Your task to perform on an android device: turn on showing notifications on the lock screen Image 0: 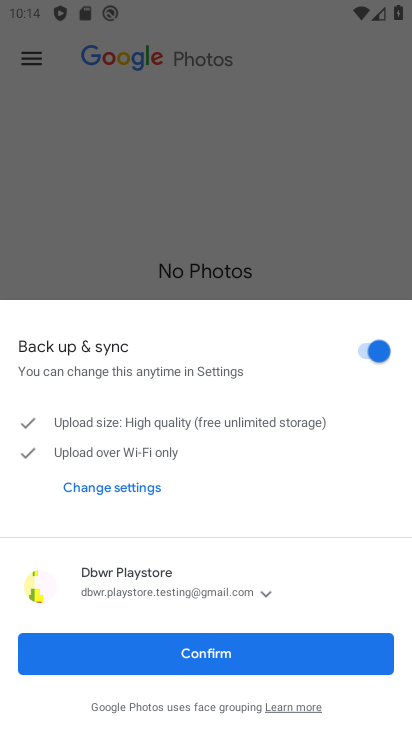
Step 0: press home button
Your task to perform on an android device: turn on showing notifications on the lock screen Image 1: 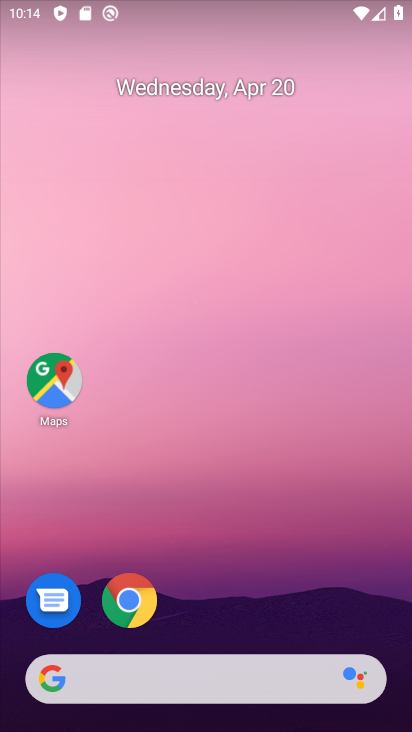
Step 1: drag from (209, 576) to (307, 86)
Your task to perform on an android device: turn on showing notifications on the lock screen Image 2: 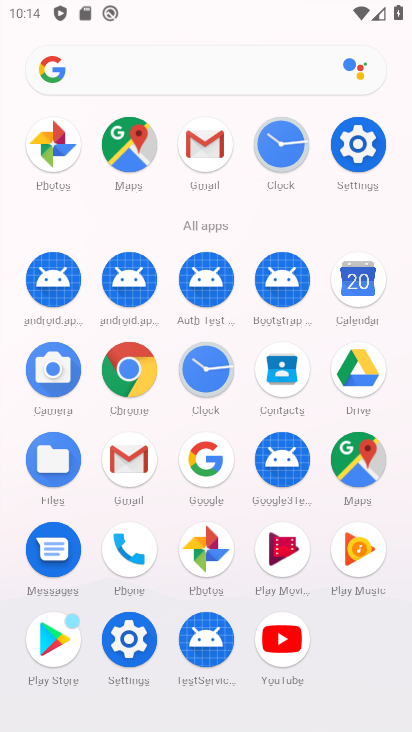
Step 2: click (348, 137)
Your task to perform on an android device: turn on showing notifications on the lock screen Image 3: 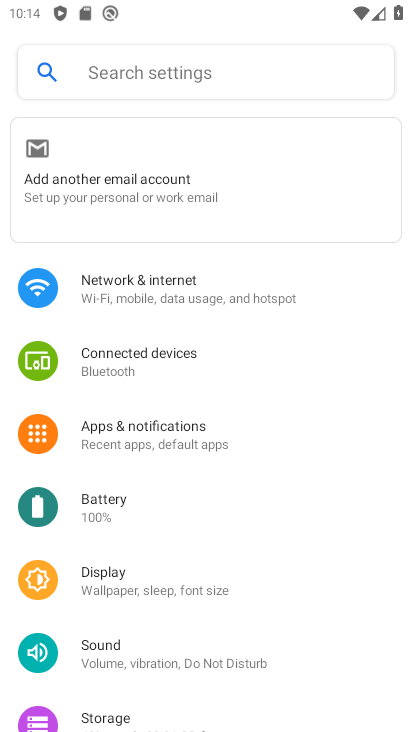
Step 3: click (208, 433)
Your task to perform on an android device: turn on showing notifications on the lock screen Image 4: 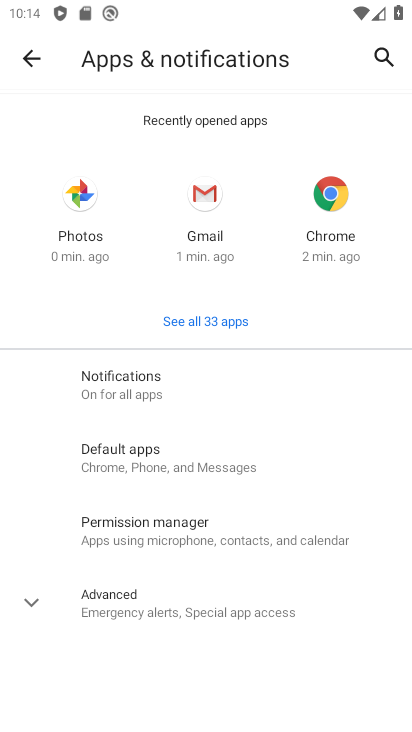
Step 4: click (209, 391)
Your task to perform on an android device: turn on showing notifications on the lock screen Image 5: 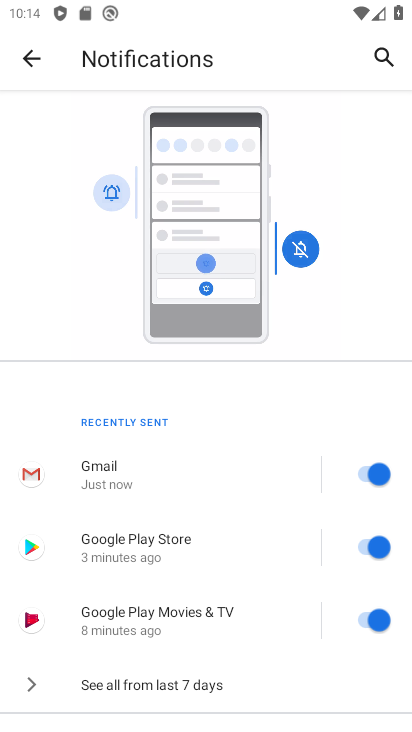
Step 5: drag from (257, 617) to (323, 134)
Your task to perform on an android device: turn on showing notifications on the lock screen Image 6: 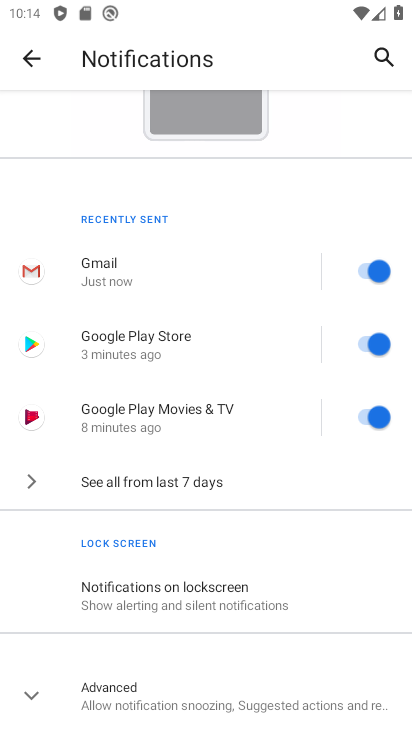
Step 6: click (191, 595)
Your task to perform on an android device: turn on showing notifications on the lock screen Image 7: 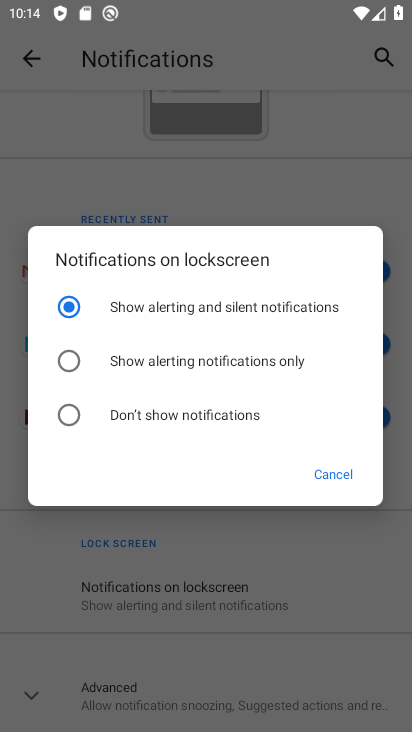
Step 7: click (332, 468)
Your task to perform on an android device: turn on showing notifications on the lock screen Image 8: 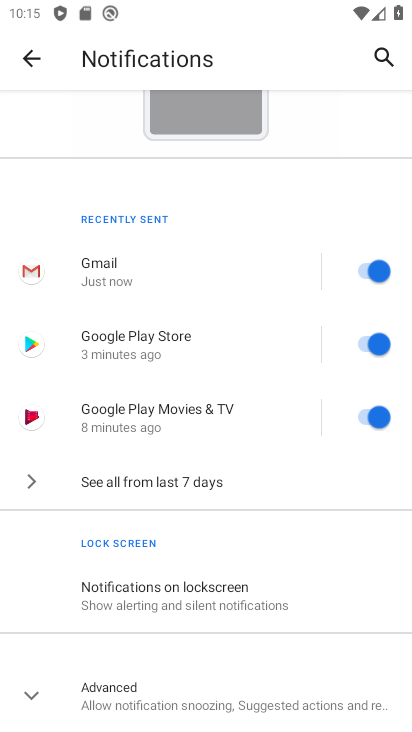
Step 8: task complete